Your task to perform on an android device: search for starred emails in the gmail app Image 0: 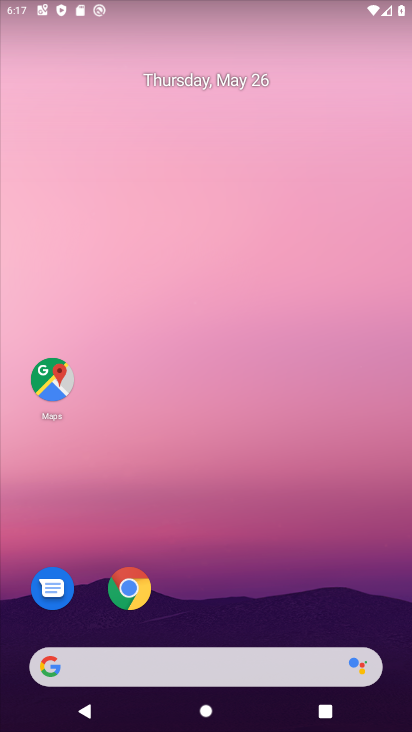
Step 0: drag from (323, 563) to (299, 60)
Your task to perform on an android device: search for starred emails in the gmail app Image 1: 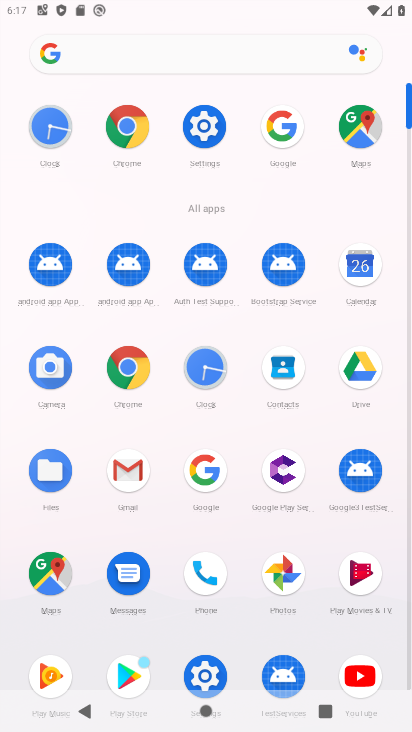
Step 1: click (141, 482)
Your task to perform on an android device: search for starred emails in the gmail app Image 2: 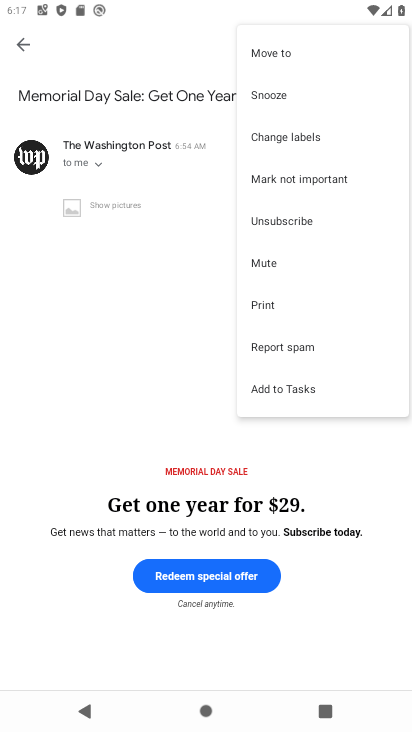
Step 2: press back button
Your task to perform on an android device: search for starred emails in the gmail app Image 3: 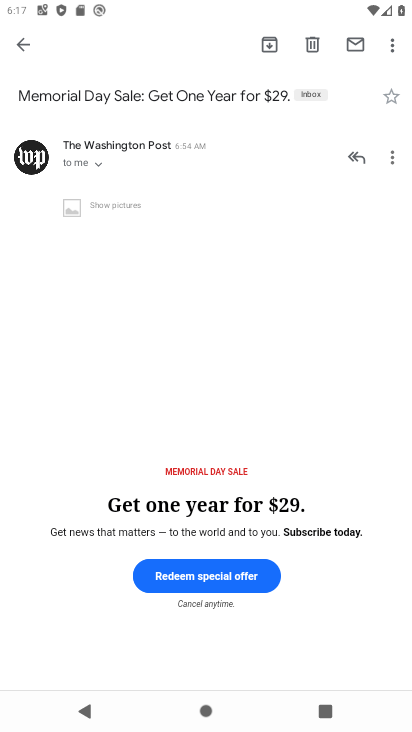
Step 3: press back button
Your task to perform on an android device: search for starred emails in the gmail app Image 4: 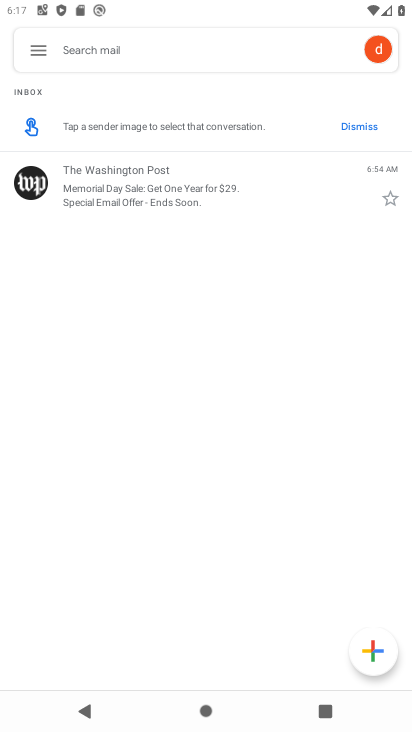
Step 4: click (42, 52)
Your task to perform on an android device: search for starred emails in the gmail app Image 5: 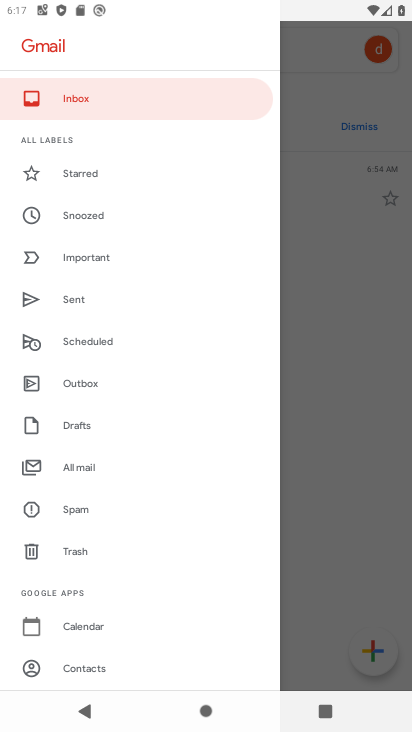
Step 5: click (32, 180)
Your task to perform on an android device: search for starred emails in the gmail app Image 6: 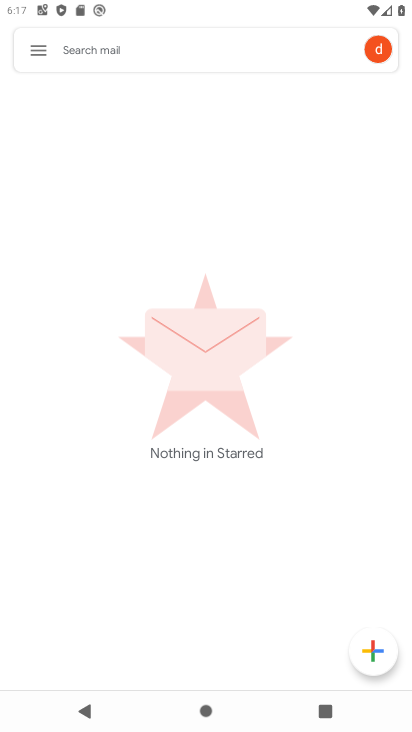
Step 6: task complete